Your task to perform on an android device: Go to ESPN.com Image 0: 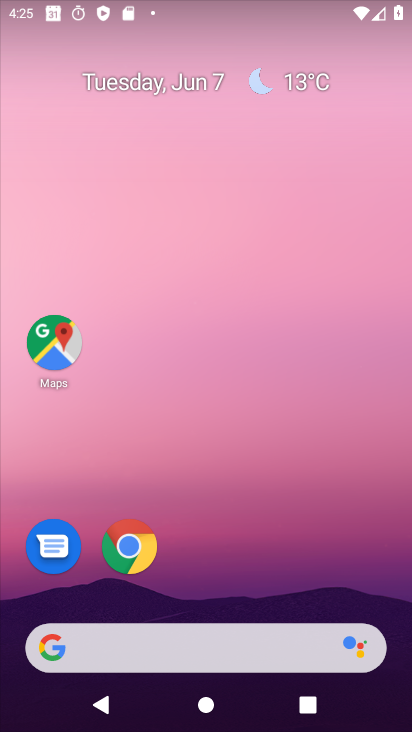
Step 0: click (176, 639)
Your task to perform on an android device: Go to ESPN.com Image 1: 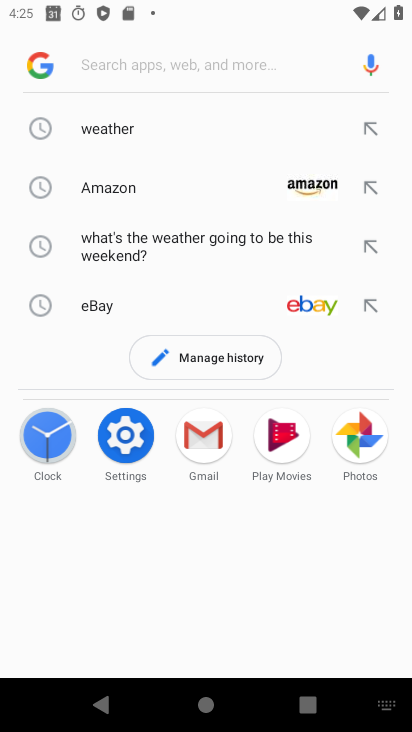
Step 1: type "espn"
Your task to perform on an android device: Go to ESPN.com Image 2: 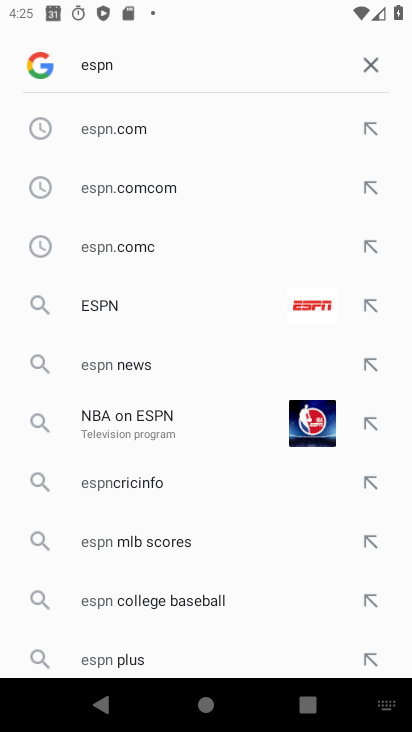
Step 2: click (131, 254)
Your task to perform on an android device: Go to ESPN.com Image 3: 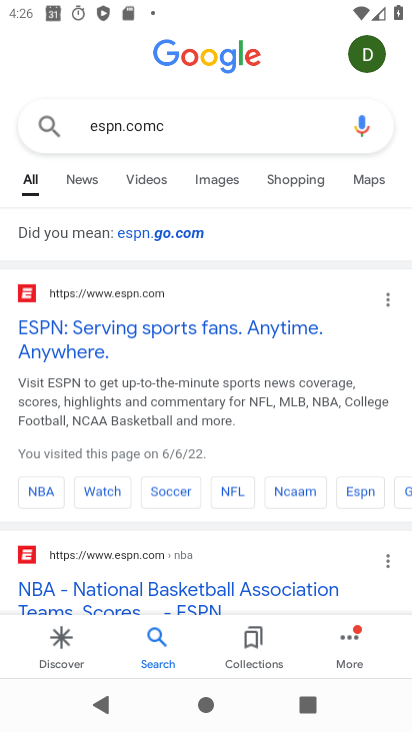
Step 3: task complete